Your task to perform on an android device: Open Youtube and go to "Your channel" Image 0: 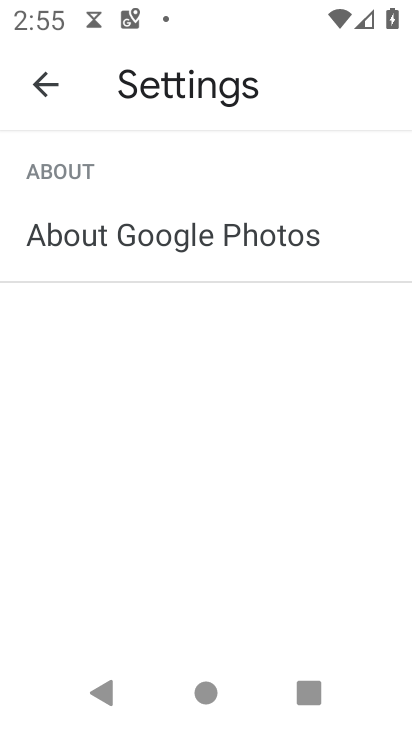
Step 0: press home button
Your task to perform on an android device: Open Youtube and go to "Your channel" Image 1: 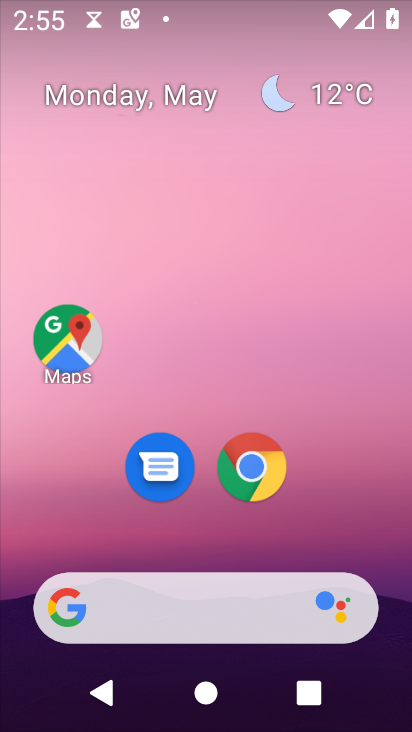
Step 1: drag from (386, 578) to (281, 171)
Your task to perform on an android device: Open Youtube and go to "Your channel" Image 2: 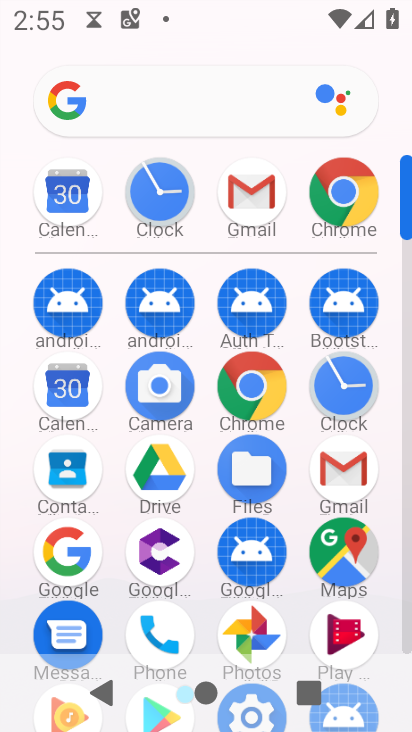
Step 2: click (404, 646)
Your task to perform on an android device: Open Youtube and go to "Your channel" Image 3: 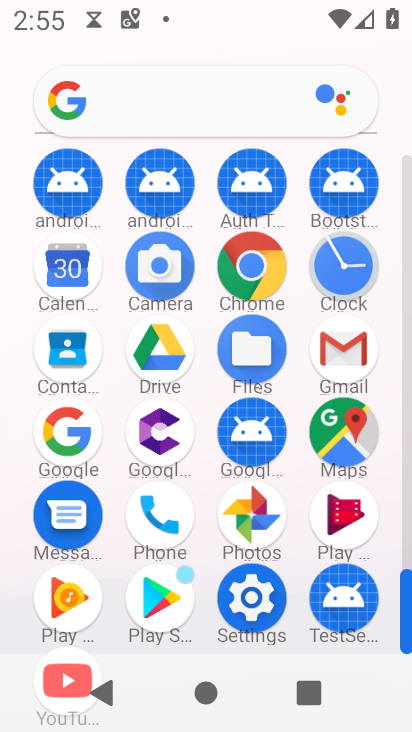
Step 3: click (73, 652)
Your task to perform on an android device: Open Youtube and go to "Your channel" Image 4: 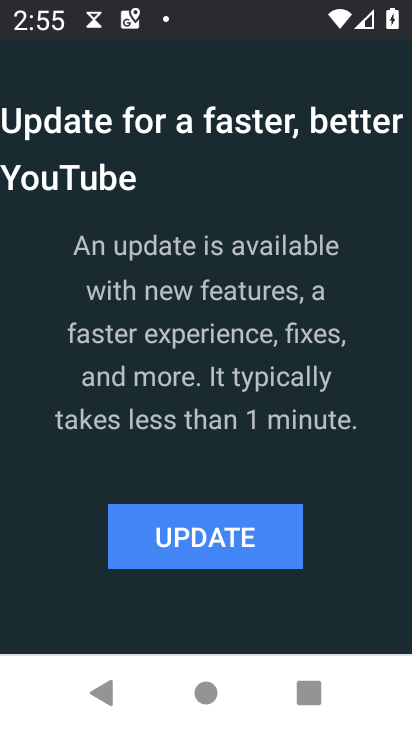
Step 4: click (191, 553)
Your task to perform on an android device: Open Youtube and go to "Your channel" Image 5: 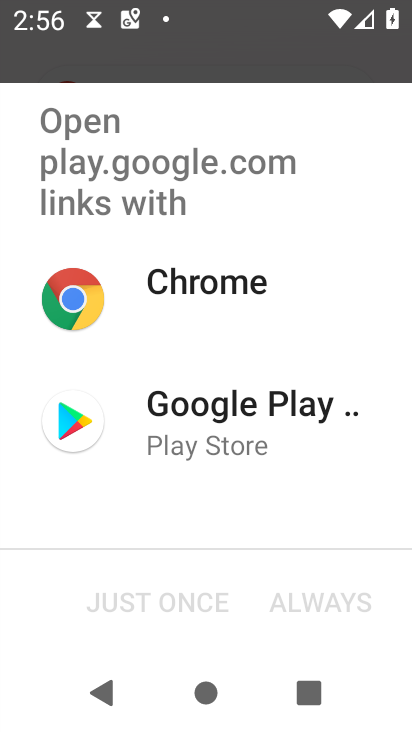
Step 5: click (297, 462)
Your task to perform on an android device: Open Youtube and go to "Your channel" Image 6: 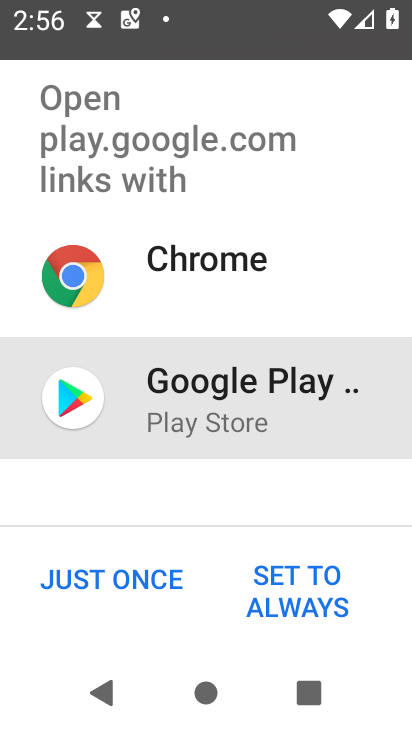
Step 6: click (151, 564)
Your task to perform on an android device: Open Youtube and go to "Your channel" Image 7: 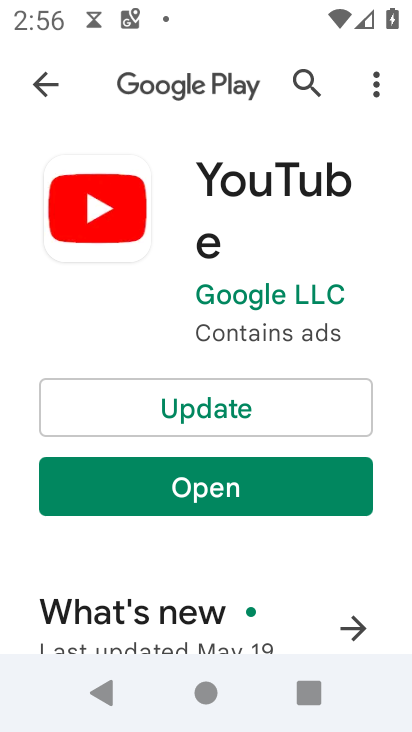
Step 7: click (267, 416)
Your task to perform on an android device: Open Youtube and go to "Your channel" Image 8: 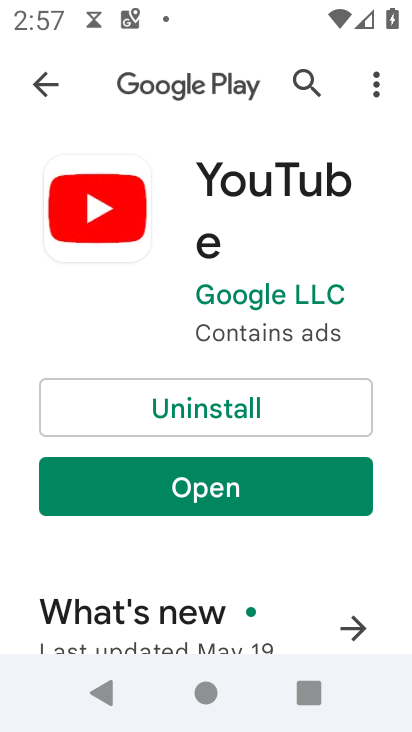
Step 8: click (340, 496)
Your task to perform on an android device: Open Youtube and go to "Your channel" Image 9: 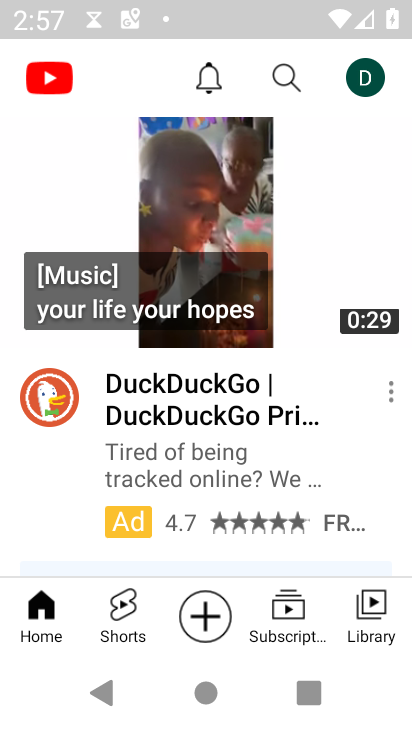
Step 9: click (358, 81)
Your task to perform on an android device: Open Youtube and go to "Your channel" Image 10: 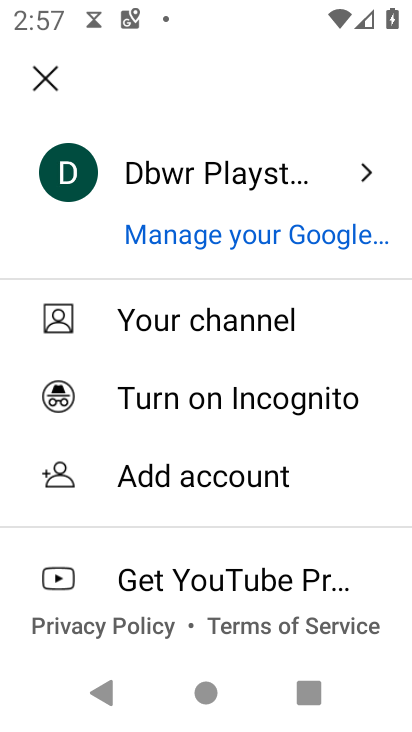
Step 10: click (307, 321)
Your task to perform on an android device: Open Youtube and go to "Your channel" Image 11: 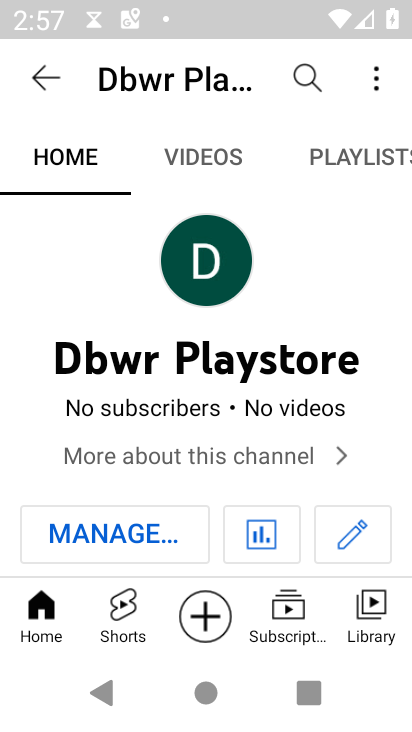
Step 11: task complete